Your task to perform on an android device: set an alarm Image 0: 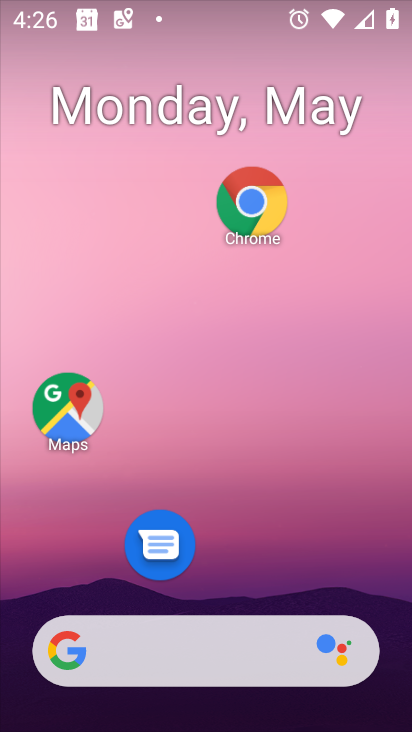
Step 0: drag from (229, 586) to (229, 109)
Your task to perform on an android device: set an alarm Image 1: 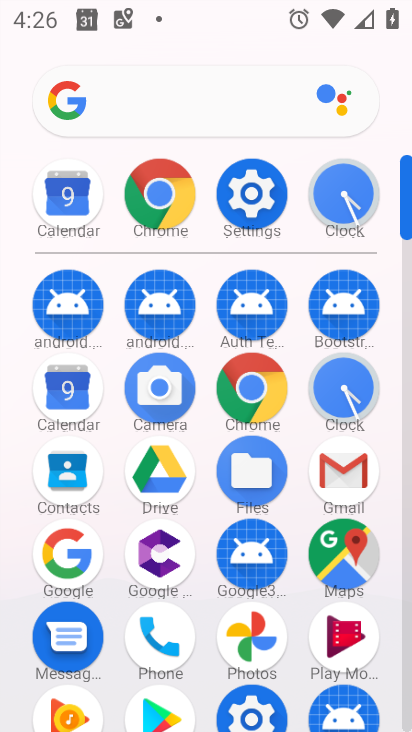
Step 1: click (327, 204)
Your task to perform on an android device: set an alarm Image 2: 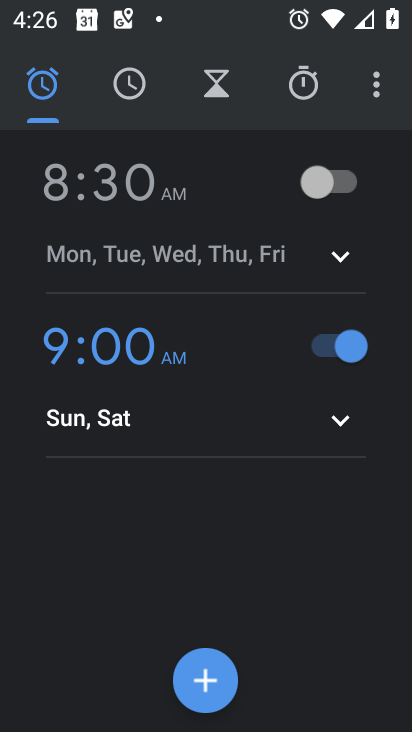
Step 2: click (341, 189)
Your task to perform on an android device: set an alarm Image 3: 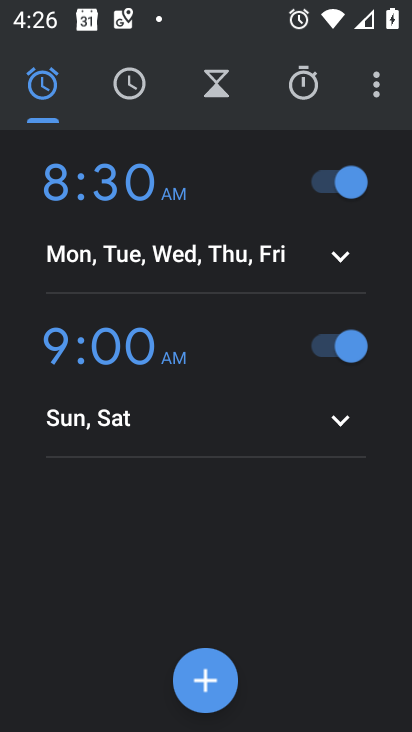
Step 3: task complete